Your task to perform on an android device: open app "Reddit" Image 0: 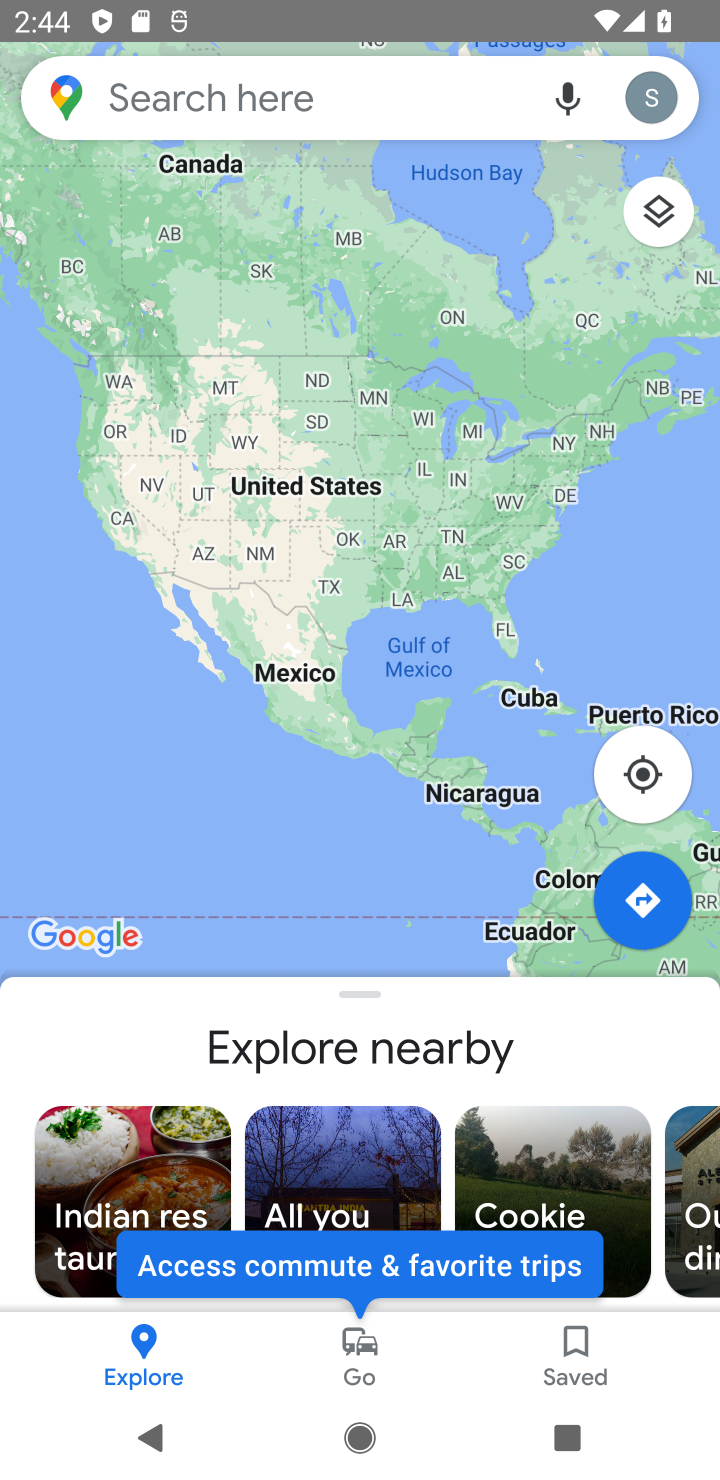
Step 0: press home button
Your task to perform on an android device: open app "Reddit" Image 1: 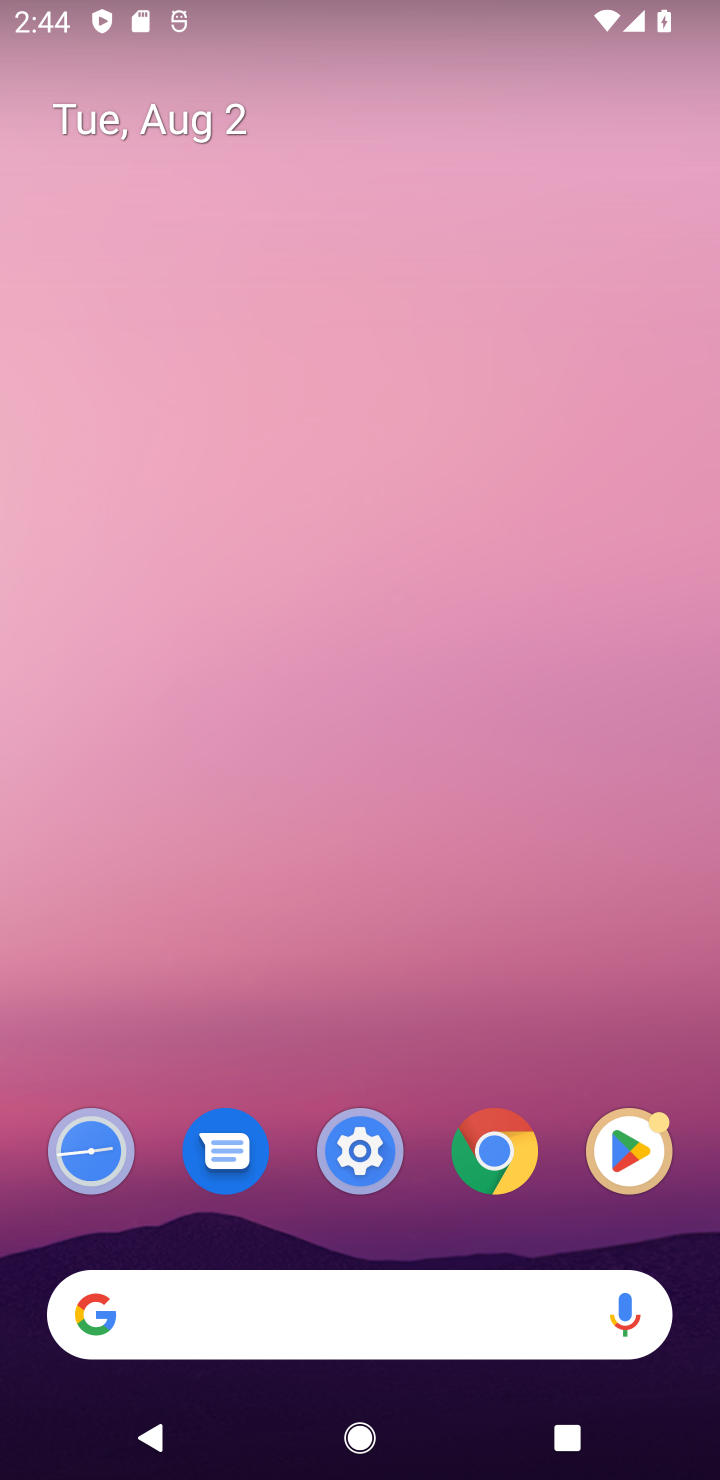
Step 1: drag from (504, 955) to (505, 277)
Your task to perform on an android device: open app "Reddit" Image 2: 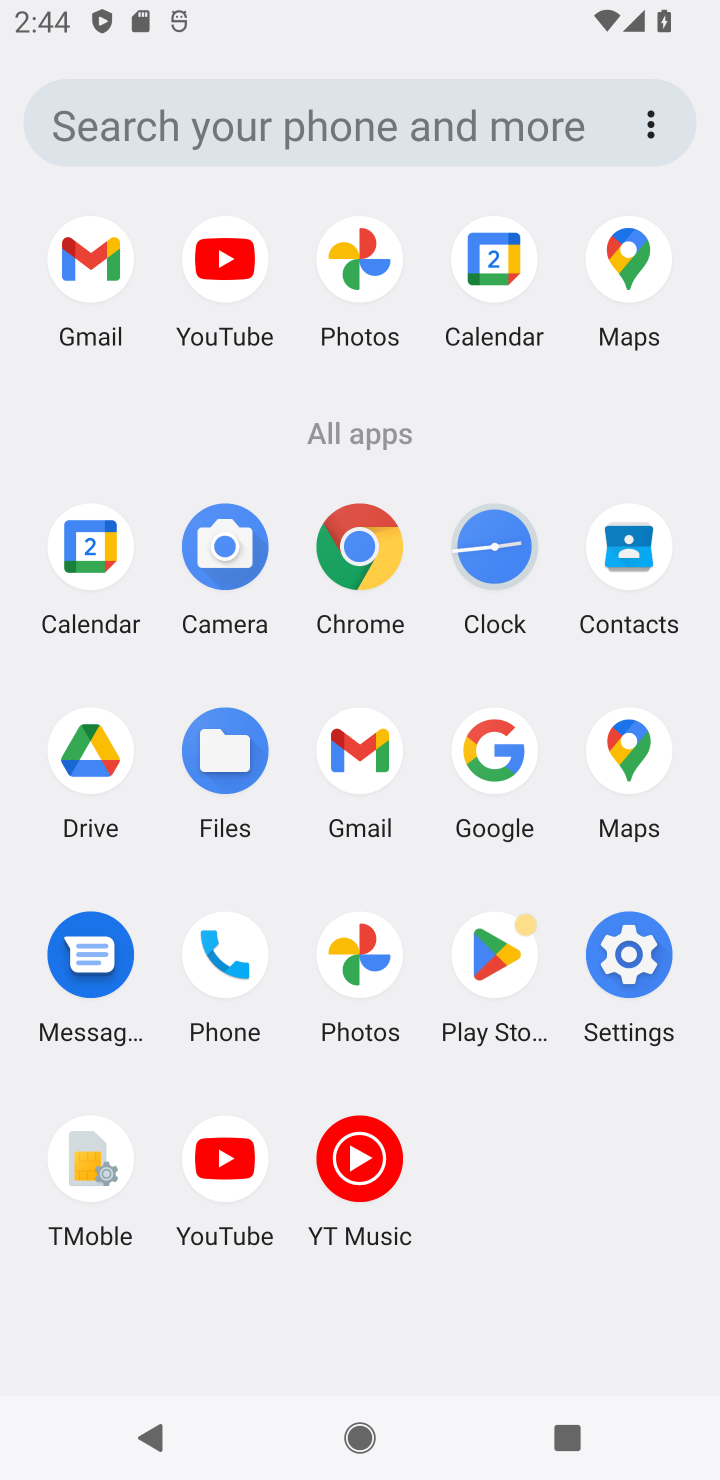
Step 2: click (471, 970)
Your task to perform on an android device: open app "Reddit" Image 3: 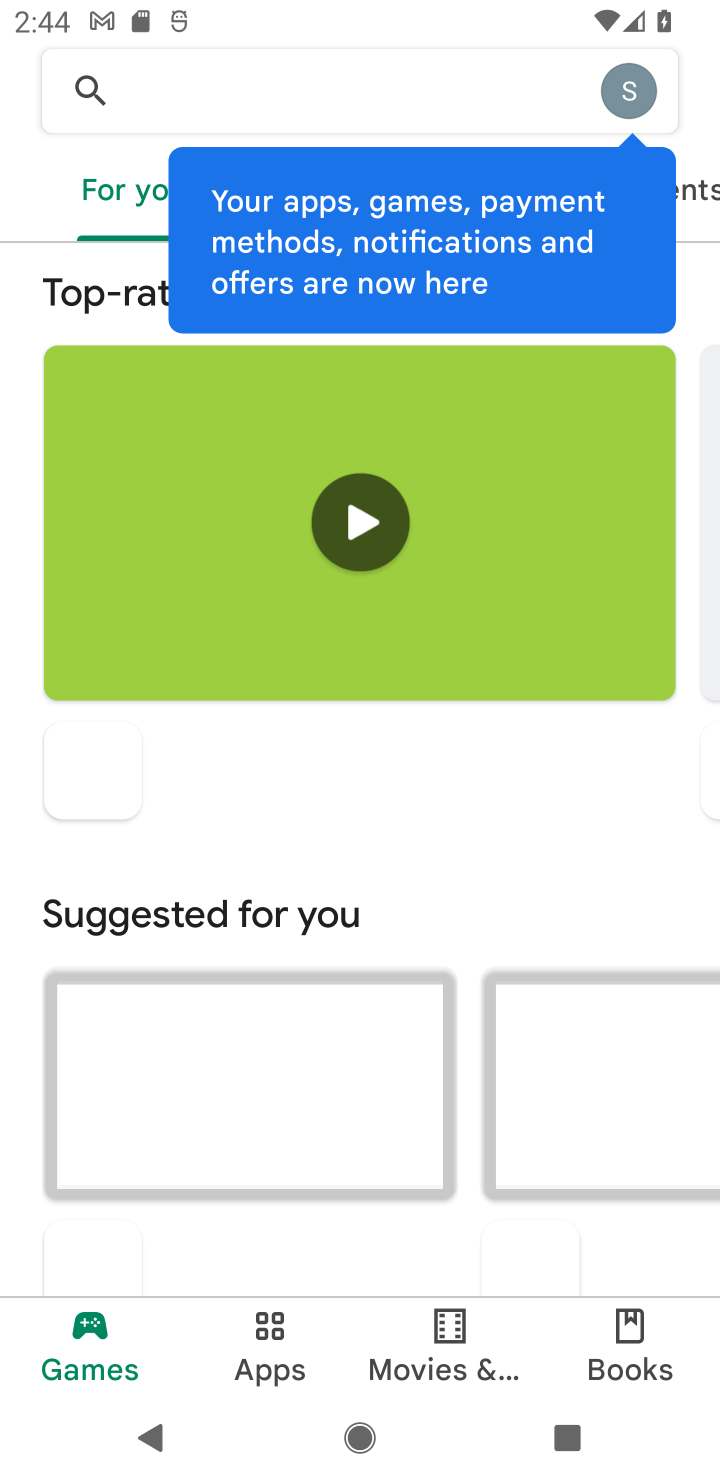
Step 3: click (394, 94)
Your task to perform on an android device: open app "Reddit" Image 4: 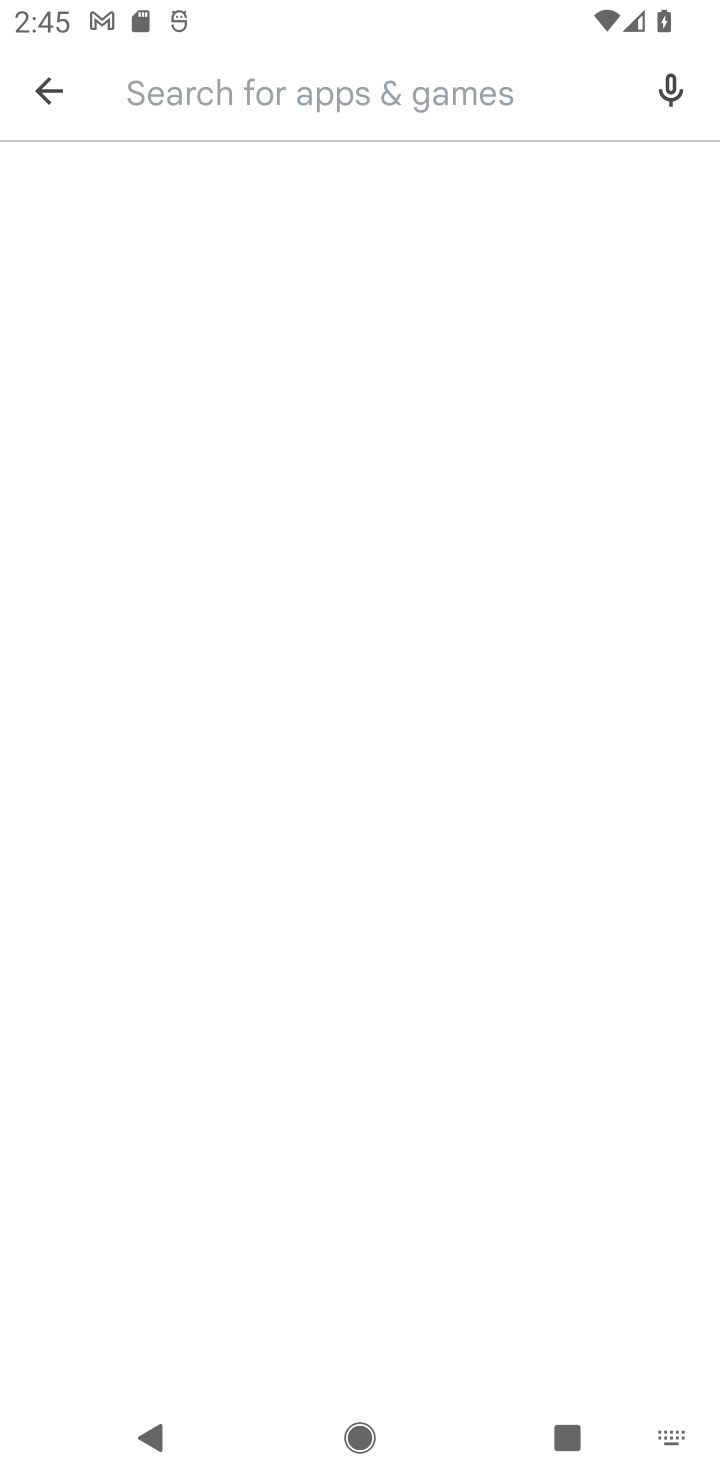
Step 4: click (378, 100)
Your task to perform on an android device: open app "Reddit" Image 5: 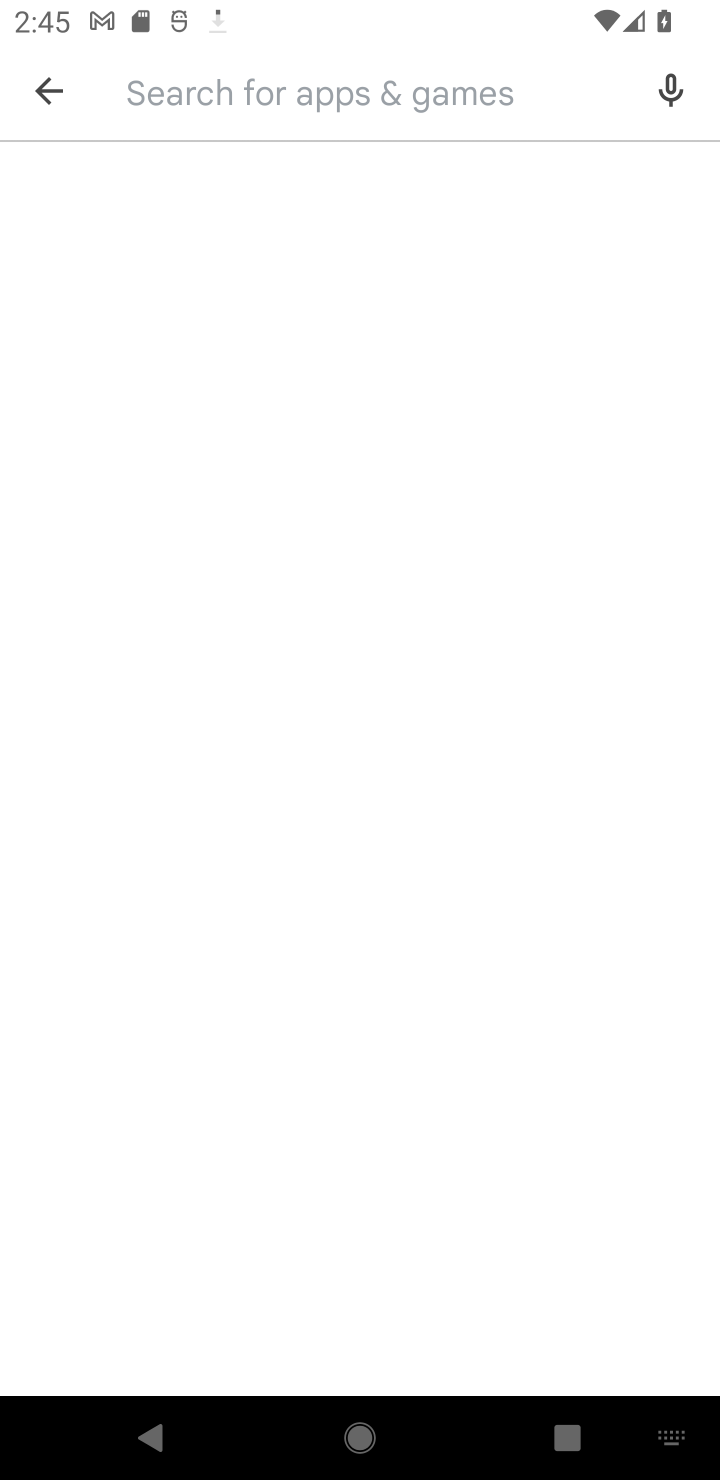
Step 5: type "Reddit"
Your task to perform on an android device: open app "Reddit" Image 6: 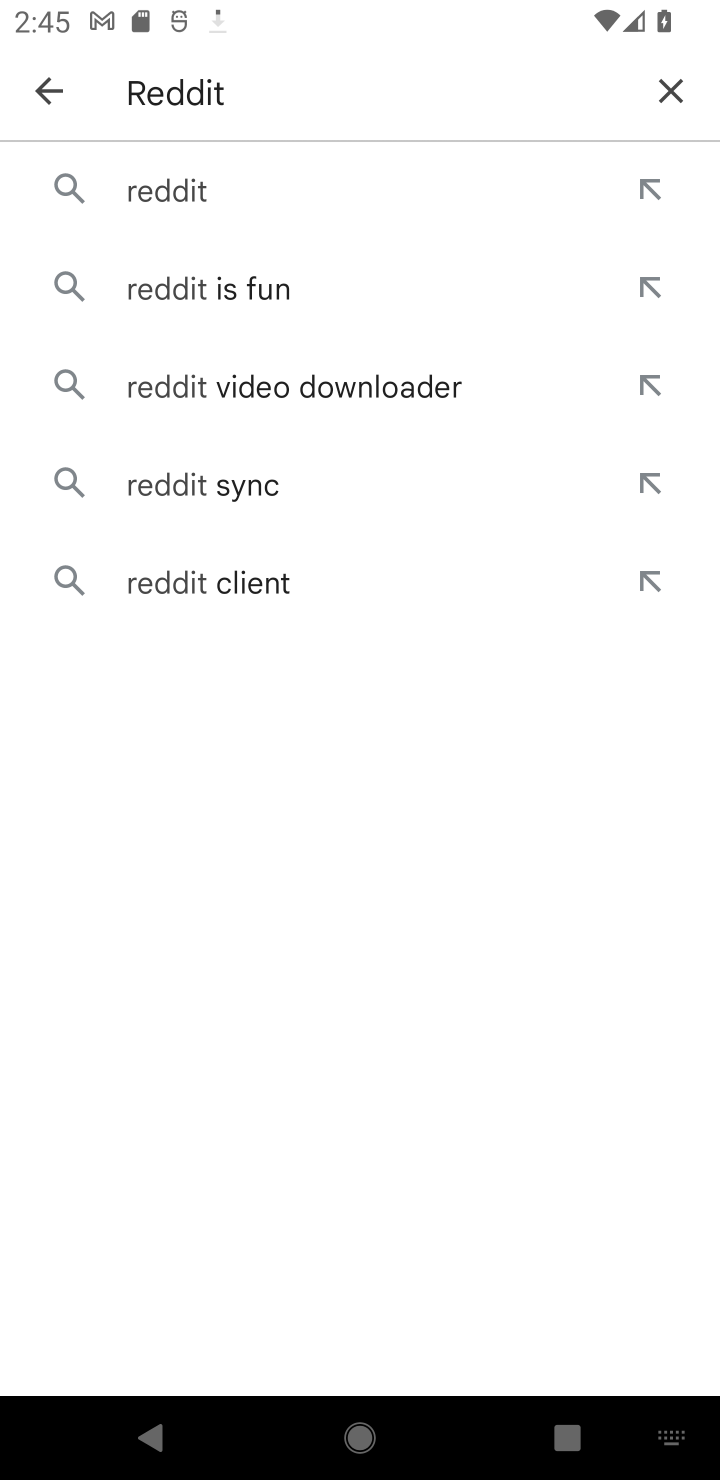
Step 6: click (230, 212)
Your task to perform on an android device: open app "Reddit" Image 7: 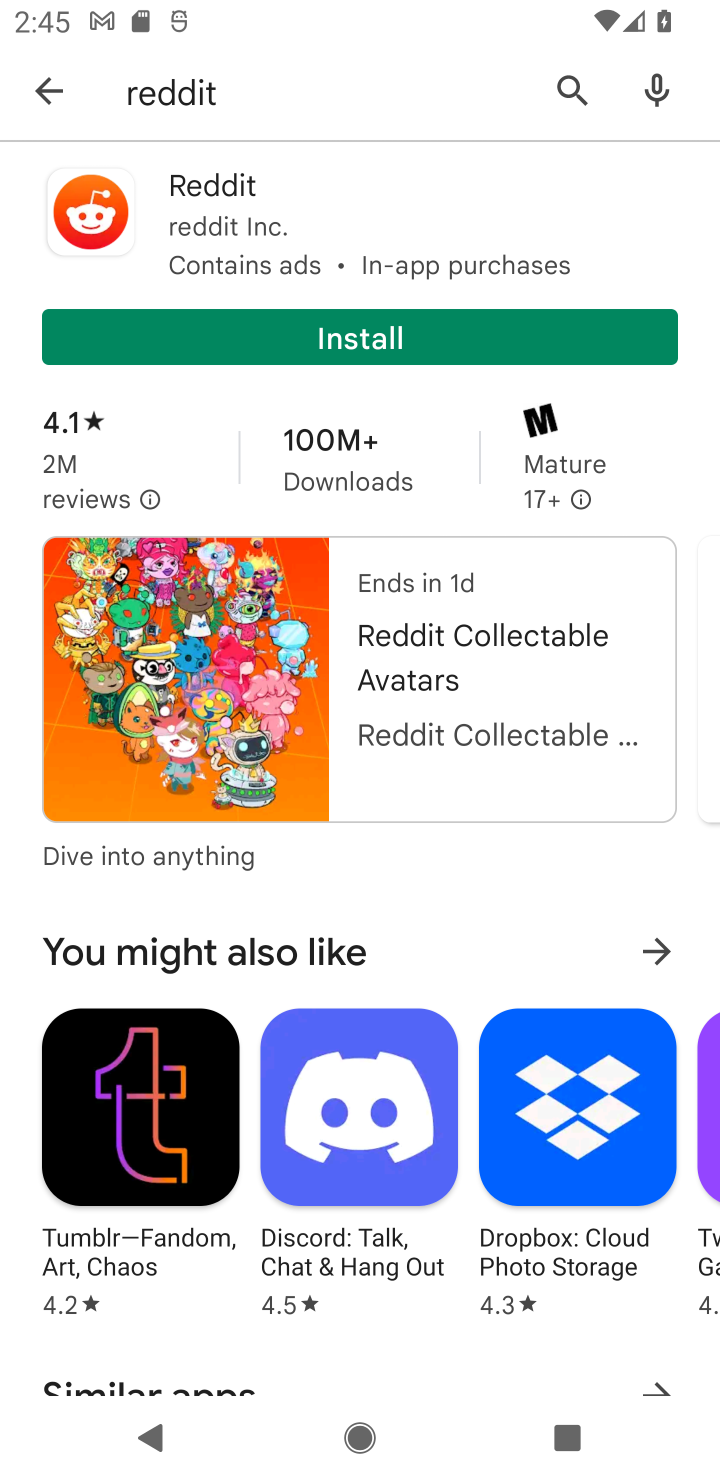
Step 7: task complete